Your task to perform on an android device: Show me popular videos on Youtube Image 0: 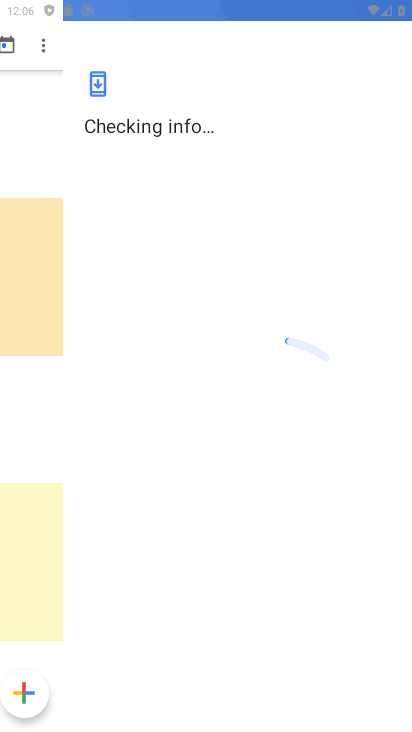
Step 0: drag from (231, 647) to (303, 8)
Your task to perform on an android device: Show me popular videos on Youtube Image 1: 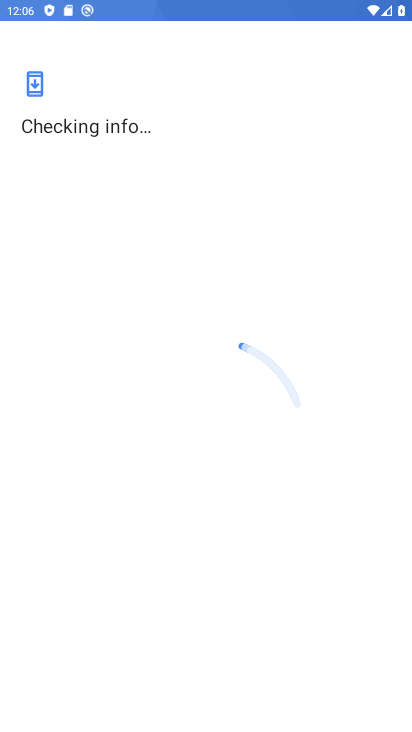
Step 1: press back button
Your task to perform on an android device: Show me popular videos on Youtube Image 2: 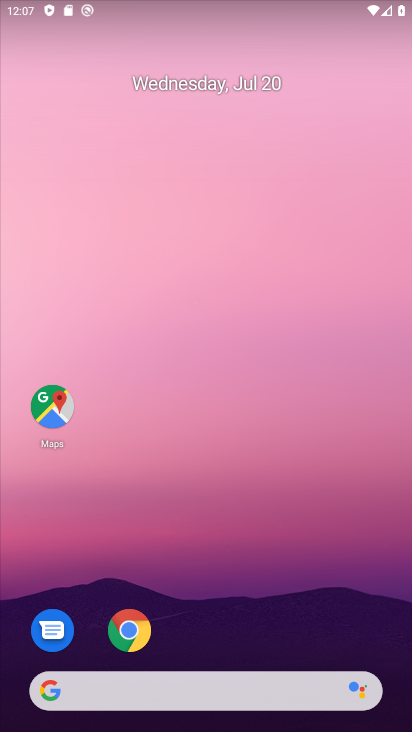
Step 2: drag from (182, 648) to (136, 23)
Your task to perform on an android device: Show me popular videos on Youtube Image 3: 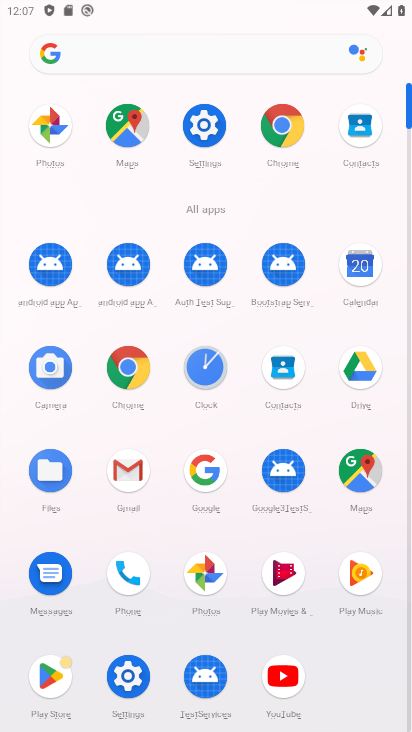
Step 3: click (271, 660)
Your task to perform on an android device: Show me popular videos on Youtube Image 4: 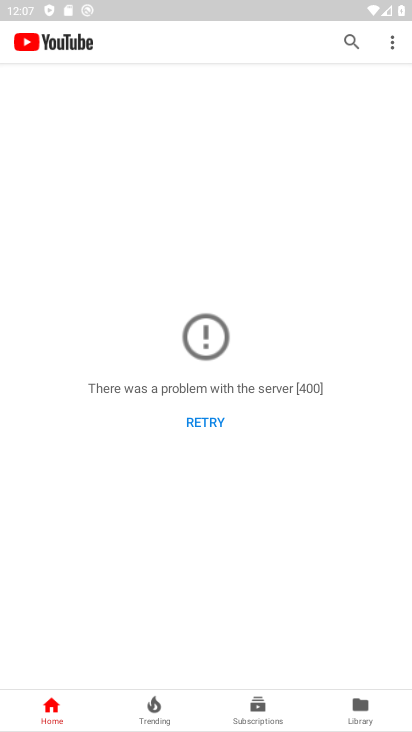
Step 4: click (206, 398)
Your task to perform on an android device: Show me popular videos on Youtube Image 5: 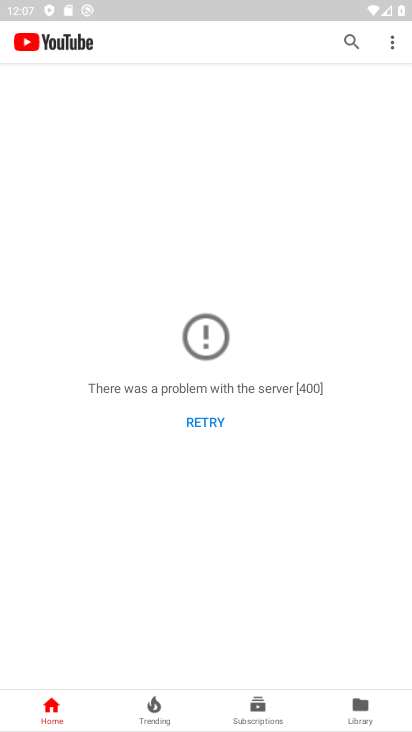
Step 5: click (204, 419)
Your task to perform on an android device: Show me popular videos on Youtube Image 6: 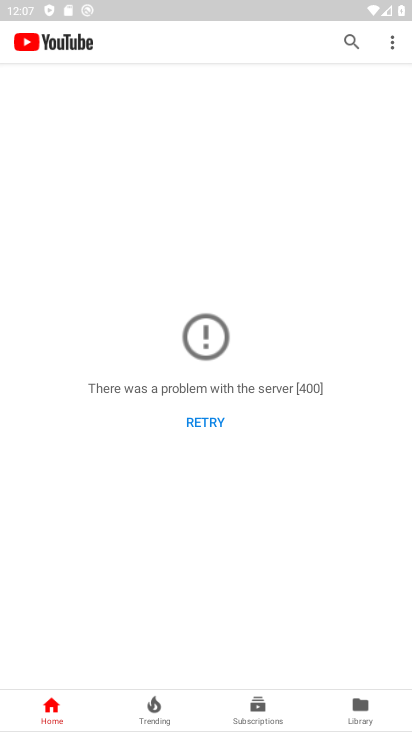
Step 6: click (365, 704)
Your task to perform on an android device: Show me popular videos on Youtube Image 7: 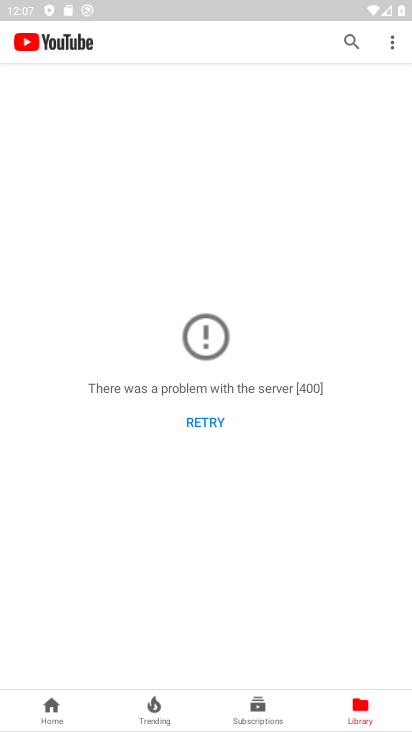
Step 7: click (189, 430)
Your task to perform on an android device: Show me popular videos on Youtube Image 8: 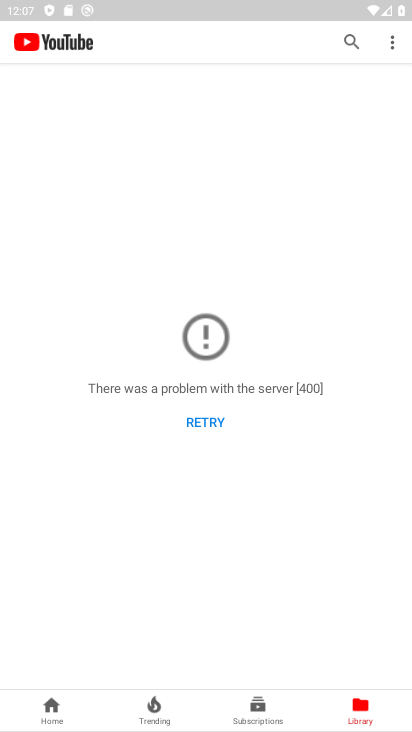
Step 8: click (198, 420)
Your task to perform on an android device: Show me popular videos on Youtube Image 9: 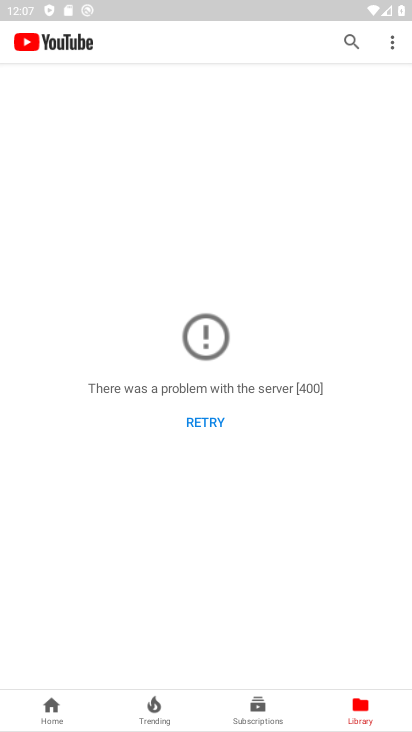
Step 9: click (52, 706)
Your task to perform on an android device: Show me popular videos on Youtube Image 10: 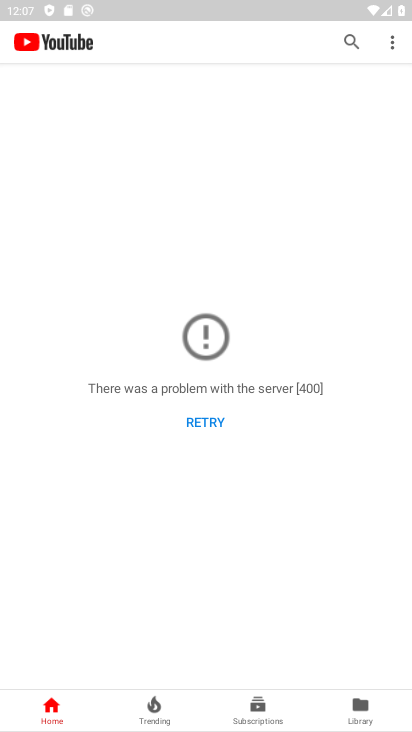
Step 10: click (209, 412)
Your task to perform on an android device: Show me popular videos on Youtube Image 11: 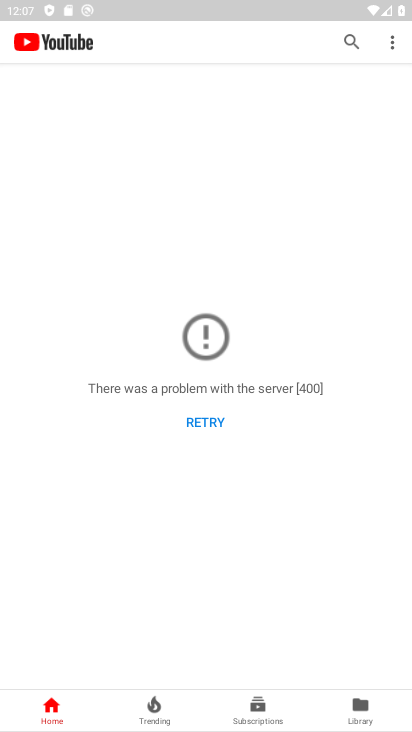
Step 11: task complete